Your task to perform on an android device: open app "Facebook" (install if not already installed) Image 0: 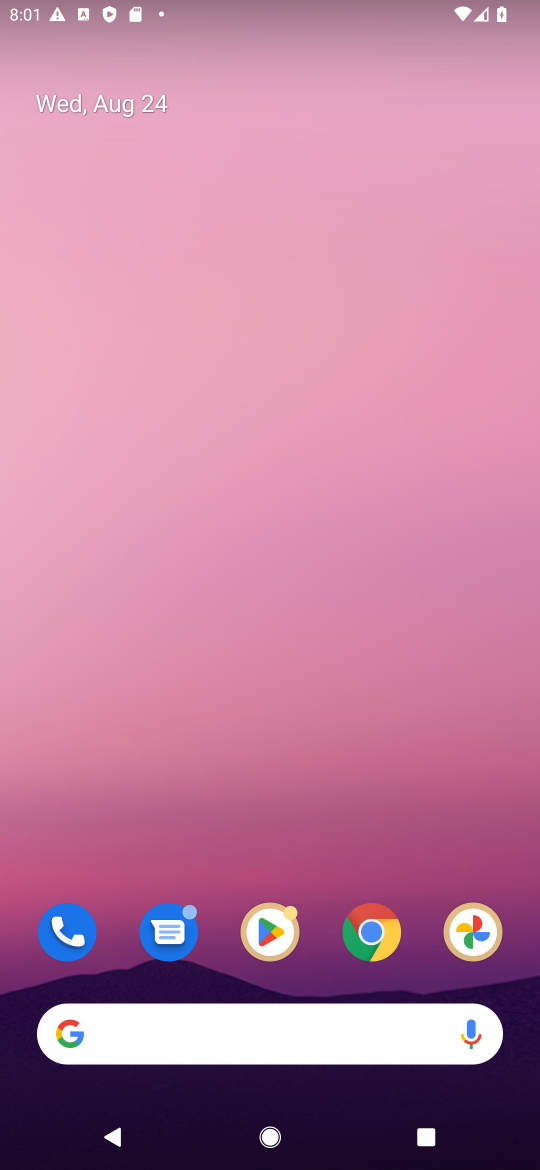
Step 0: click (282, 932)
Your task to perform on an android device: open app "Facebook" (install if not already installed) Image 1: 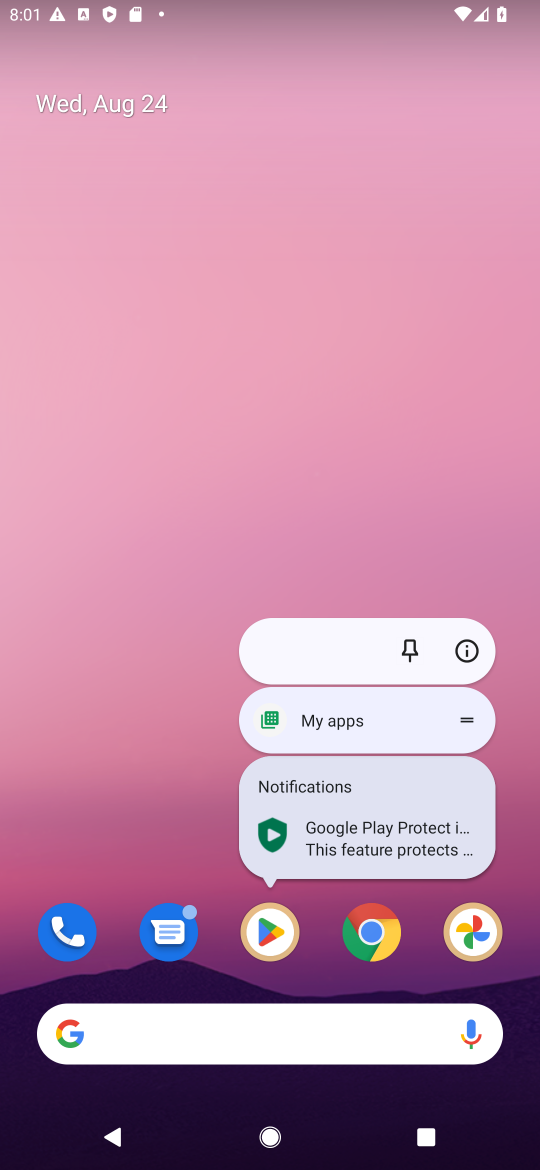
Step 1: click (287, 934)
Your task to perform on an android device: open app "Facebook" (install if not already installed) Image 2: 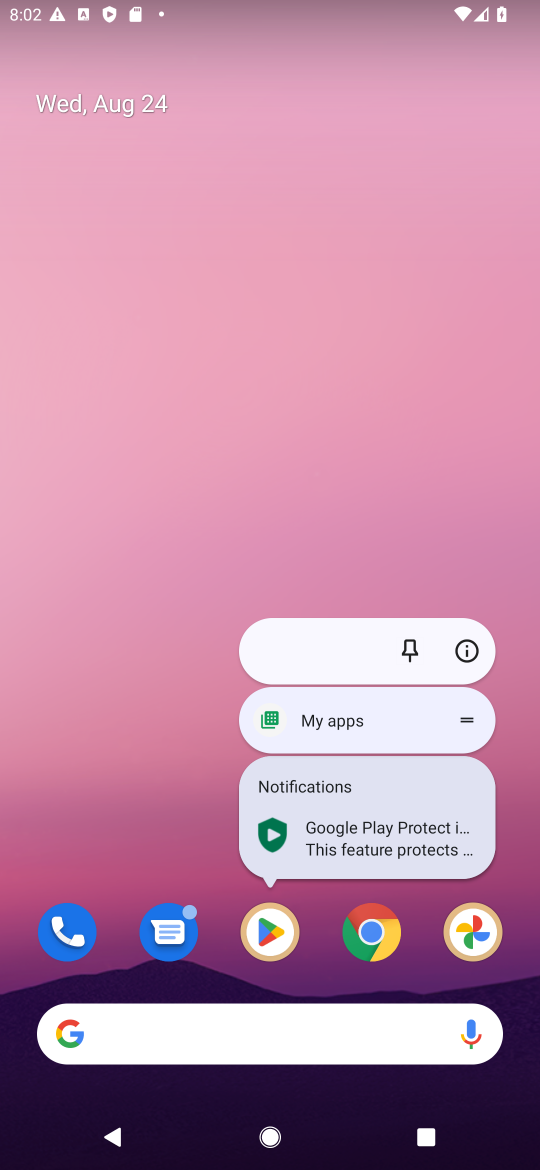
Step 2: click (277, 896)
Your task to perform on an android device: open app "Facebook" (install if not already installed) Image 3: 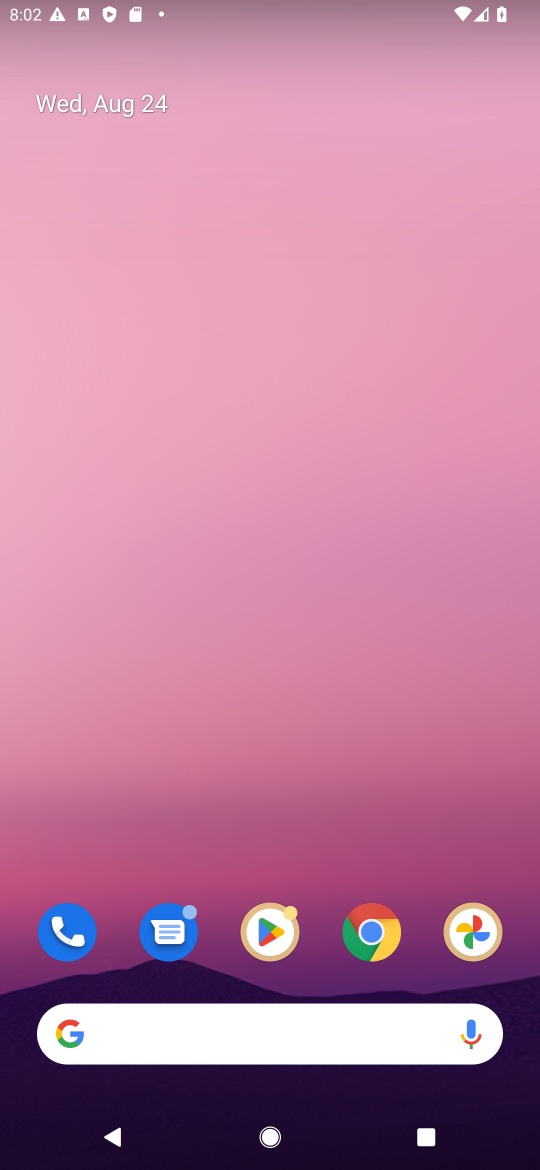
Step 3: click (275, 928)
Your task to perform on an android device: open app "Facebook" (install if not already installed) Image 4: 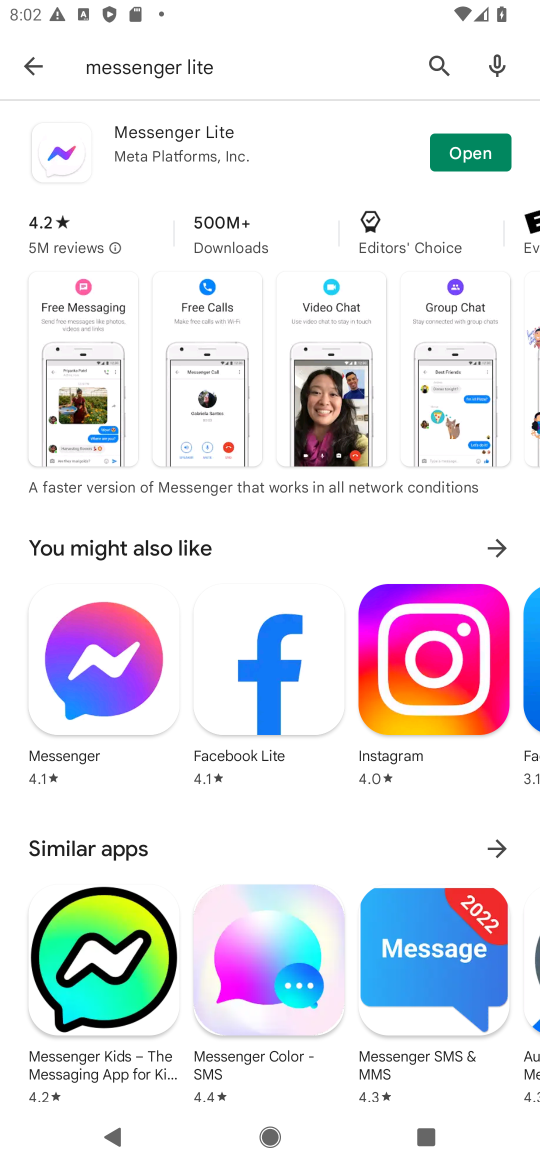
Step 4: click (186, 62)
Your task to perform on an android device: open app "Facebook" (install if not already installed) Image 5: 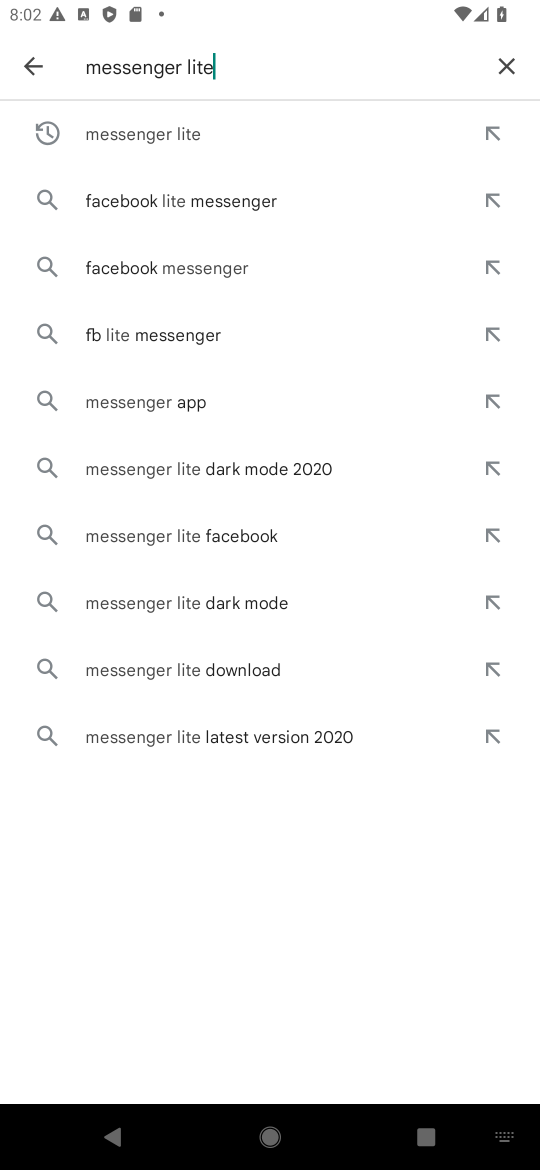
Step 5: click (505, 72)
Your task to perform on an android device: open app "Facebook" (install if not already installed) Image 6: 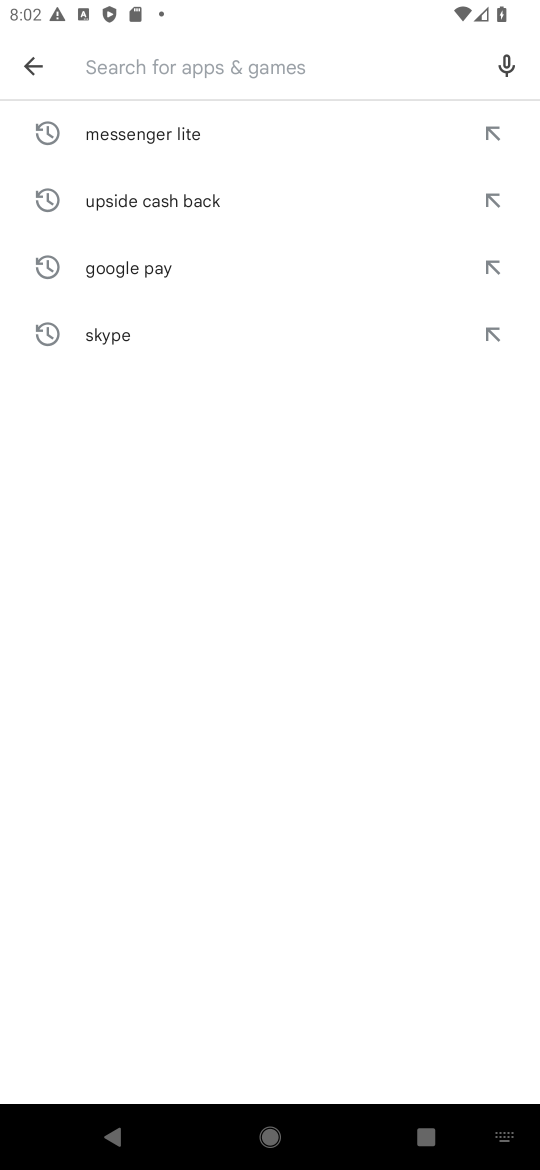
Step 6: type "facebook "
Your task to perform on an android device: open app "Facebook" (install if not already installed) Image 7: 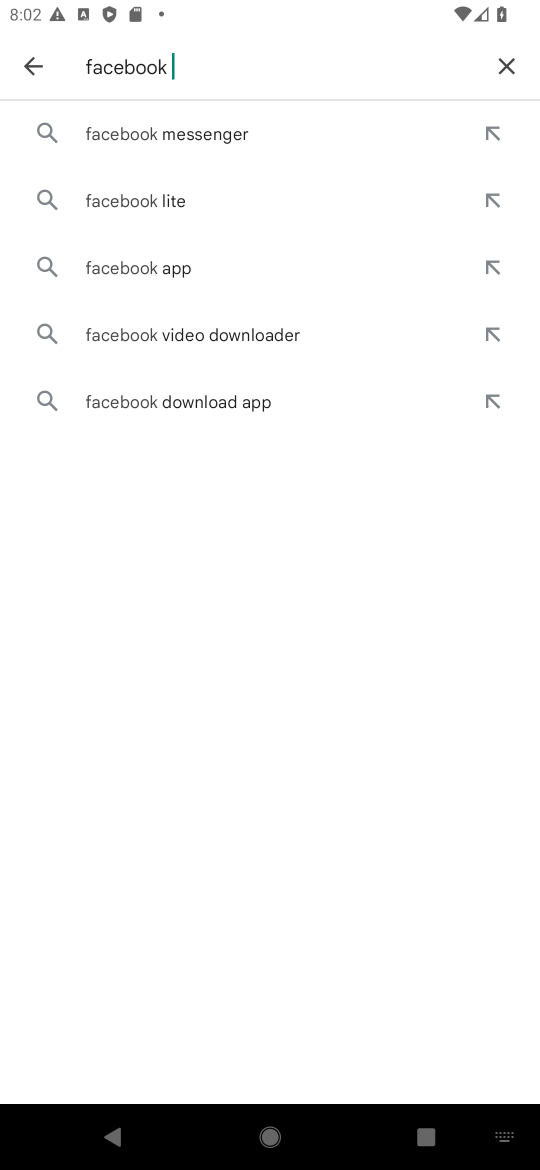
Step 7: click (151, 273)
Your task to perform on an android device: open app "Facebook" (install if not already installed) Image 8: 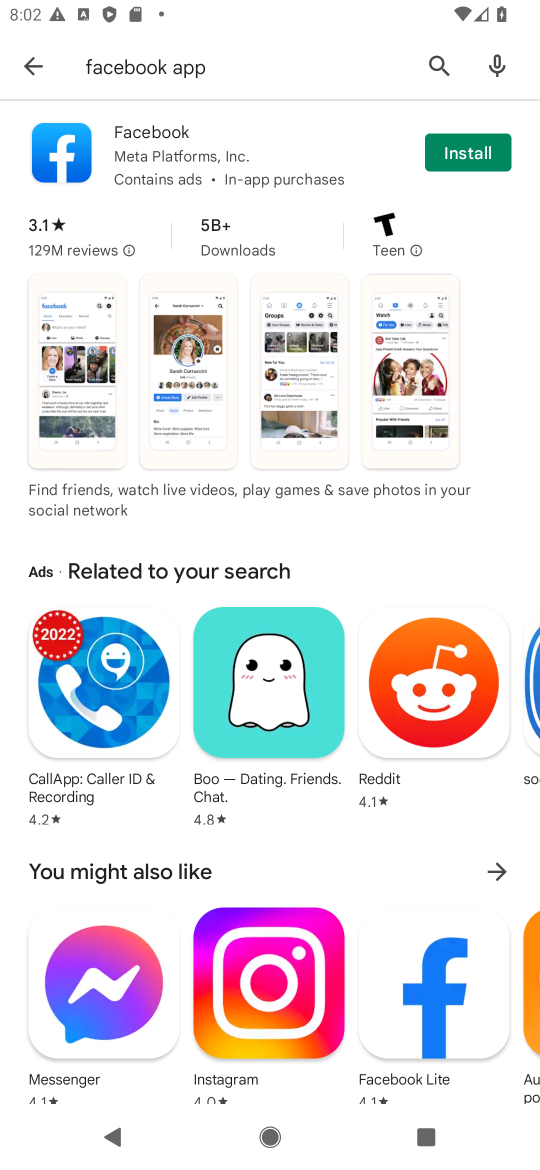
Step 8: click (459, 159)
Your task to perform on an android device: open app "Facebook" (install if not already installed) Image 9: 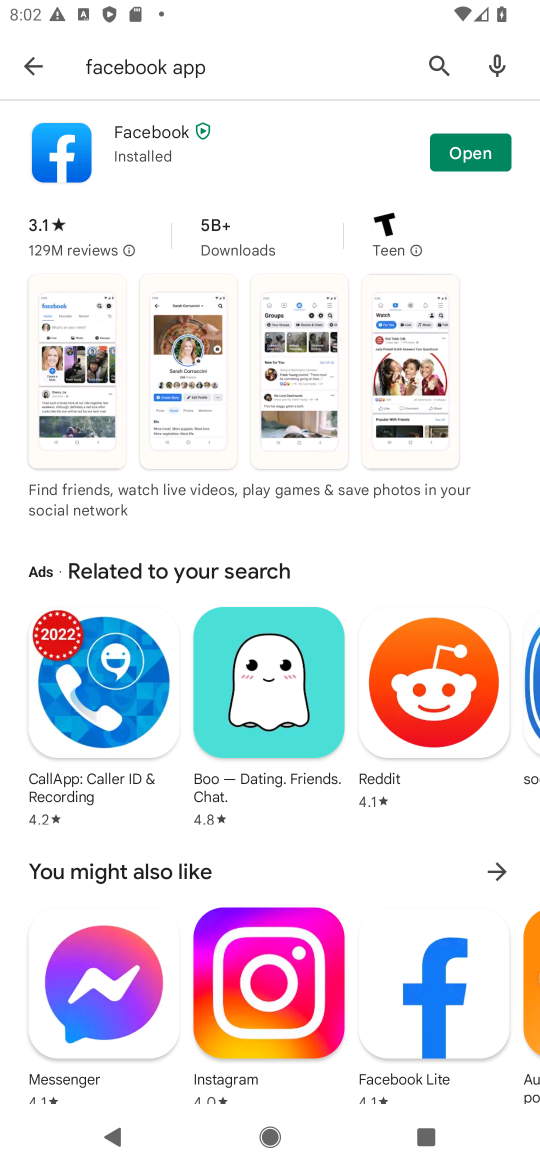
Step 9: click (458, 164)
Your task to perform on an android device: open app "Facebook" (install if not already installed) Image 10: 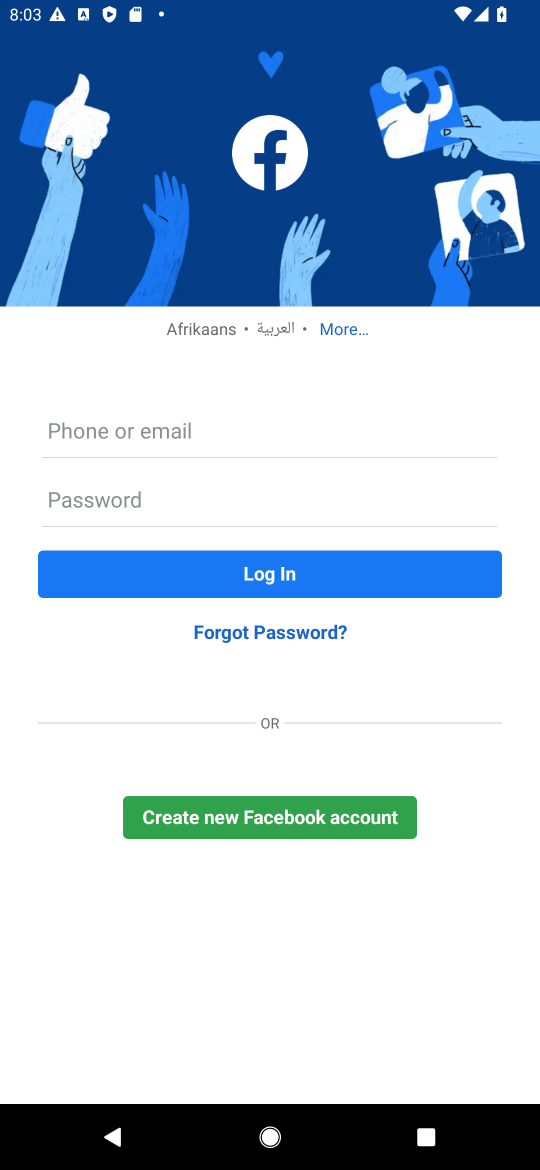
Step 10: task complete